Your task to perform on an android device: change your default location settings in chrome Image 0: 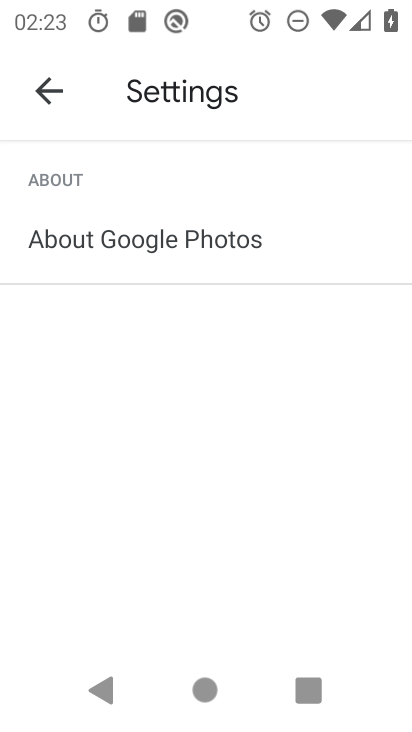
Step 0: press back button
Your task to perform on an android device: change your default location settings in chrome Image 1: 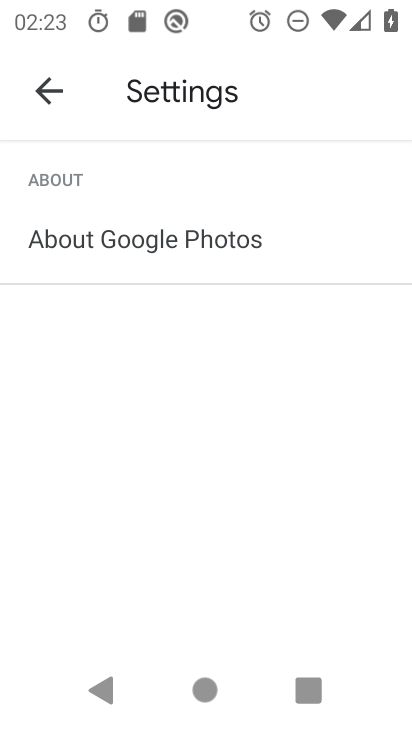
Step 1: press home button
Your task to perform on an android device: change your default location settings in chrome Image 2: 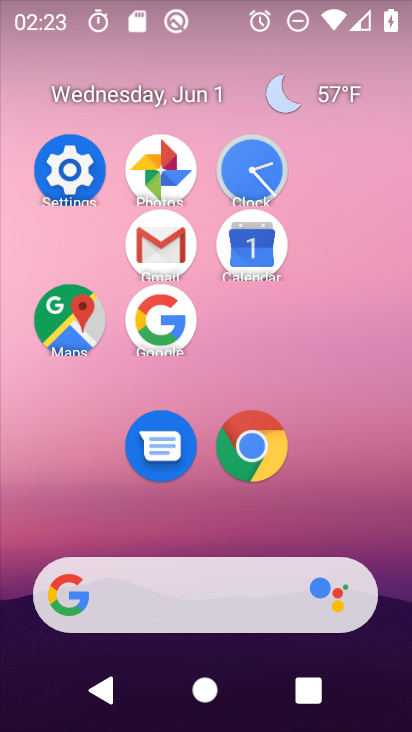
Step 2: click (262, 443)
Your task to perform on an android device: change your default location settings in chrome Image 3: 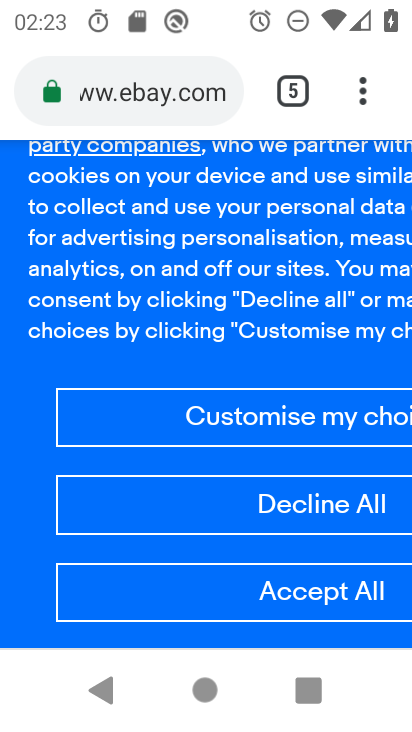
Step 3: click (379, 85)
Your task to perform on an android device: change your default location settings in chrome Image 4: 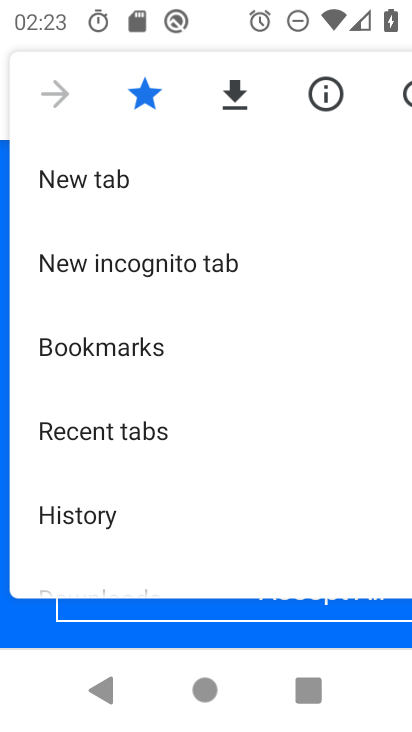
Step 4: drag from (300, 468) to (289, 151)
Your task to perform on an android device: change your default location settings in chrome Image 5: 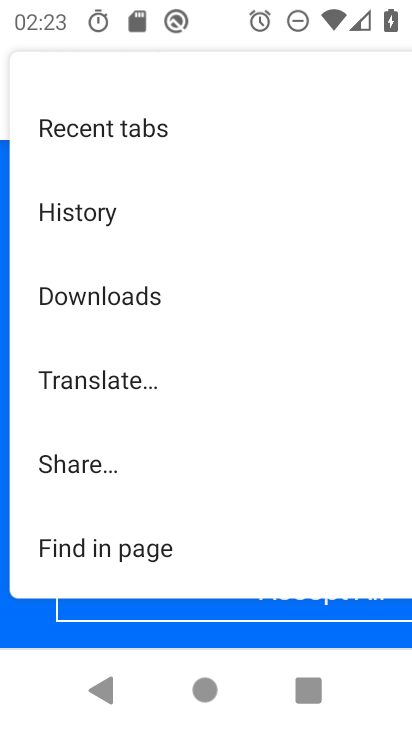
Step 5: drag from (241, 410) to (223, 79)
Your task to perform on an android device: change your default location settings in chrome Image 6: 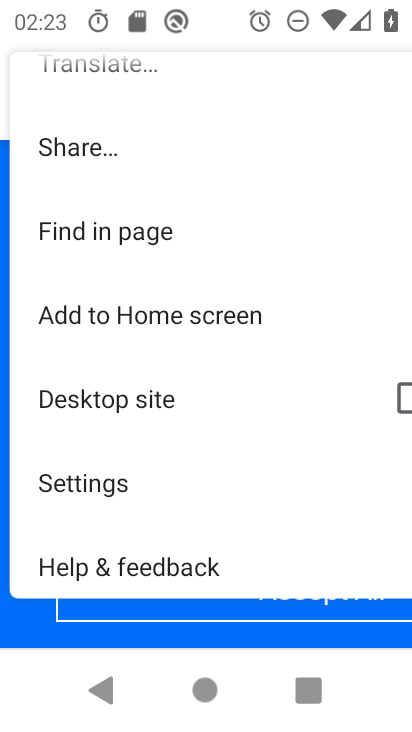
Step 6: click (156, 495)
Your task to perform on an android device: change your default location settings in chrome Image 7: 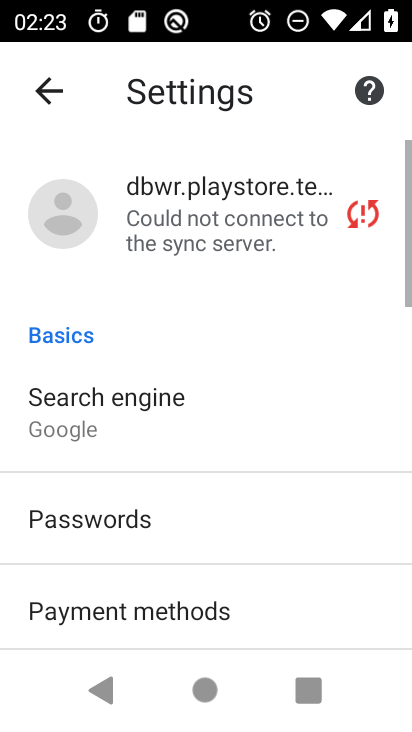
Step 7: drag from (229, 501) to (225, 166)
Your task to perform on an android device: change your default location settings in chrome Image 8: 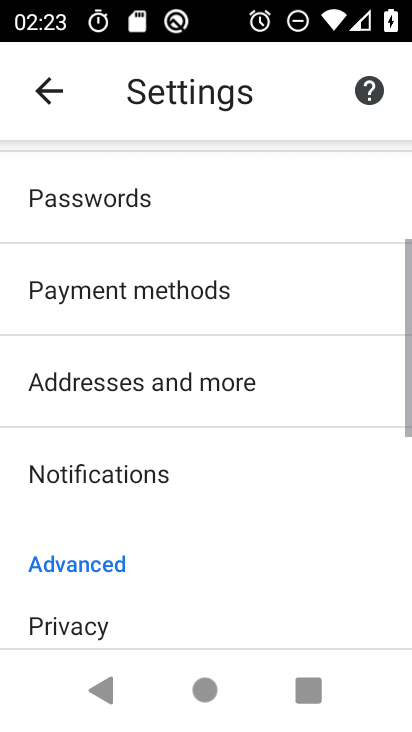
Step 8: drag from (247, 549) to (178, 133)
Your task to perform on an android device: change your default location settings in chrome Image 9: 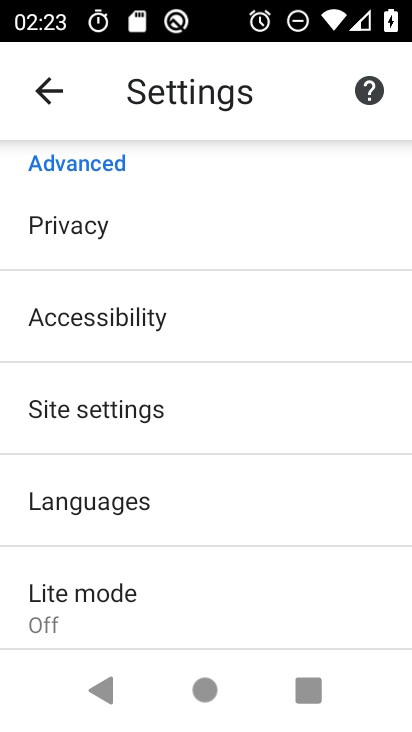
Step 9: drag from (200, 519) to (153, 111)
Your task to perform on an android device: change your default location settings in chrome Image 10: 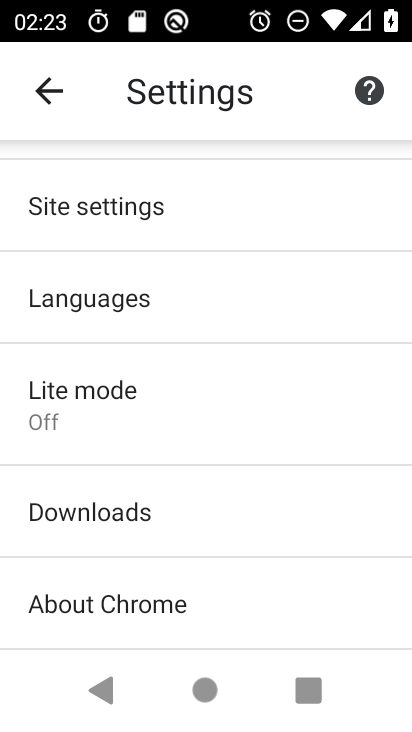
Step 10: drag from (144, 549) to (149, 175)
Your task to perform on an android device: change your default location settings in chrome Image 11: 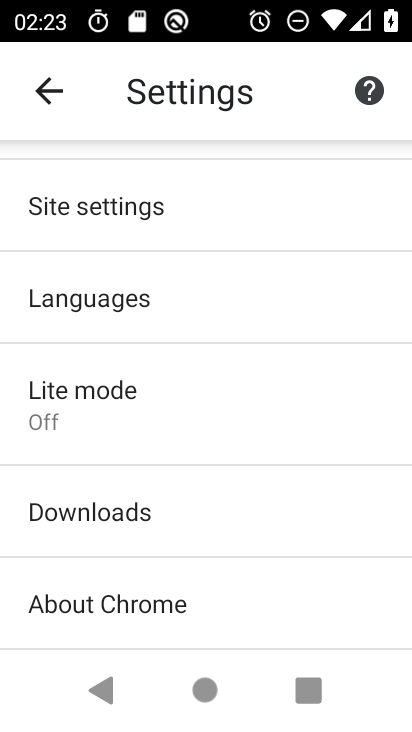
Step 11: drag from (203, 518) to (194, 192)
Your task to perform on an android device: change your default location settings in chrome Image 12: 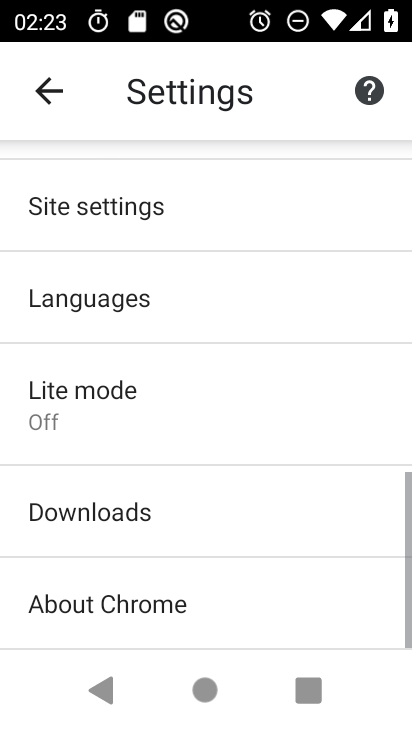
Step 12: drag from (233, 626) to (300, 219)
Your task to perform on an android device: change your default location settings in chrome Image 13: 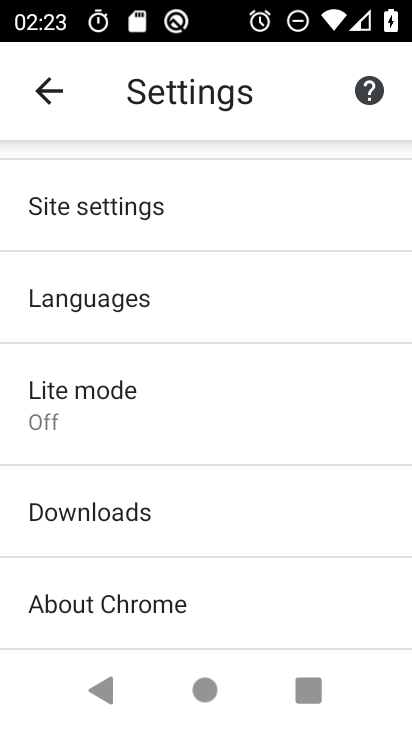
Step 13: drag from (299, 272) to (259, 723)
Your task to perform on an android device: change your default location settings in chrome Image 14: 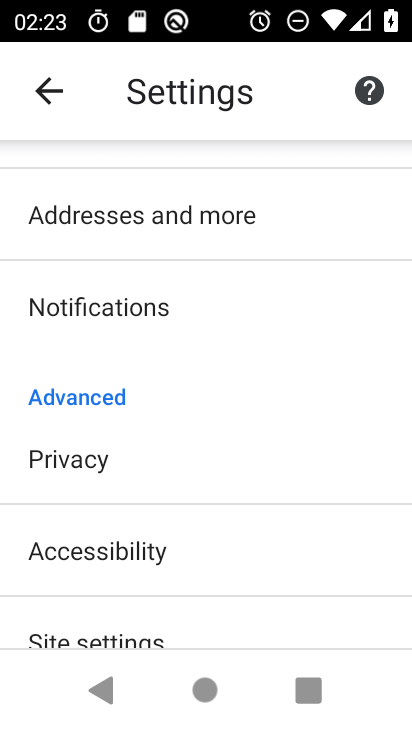
Step 14: drag from (197, 564) to (204, 262)
Your task to perform on an android device: change your default location settings in chrome Image 15: 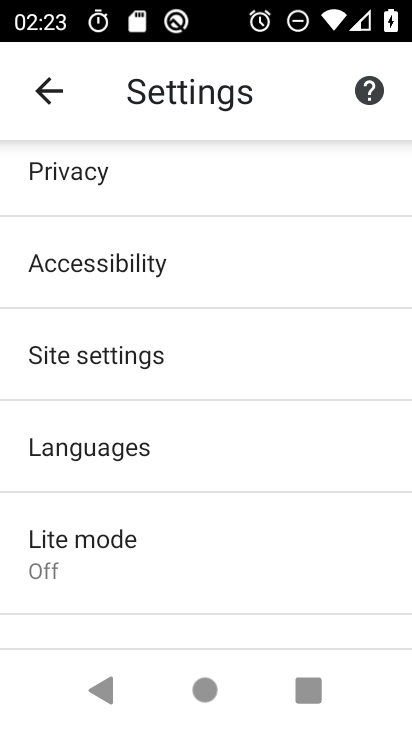
Step 15: click (221, 373)
Your task to perform on an android device: change your default location settings in chrome Image 16: 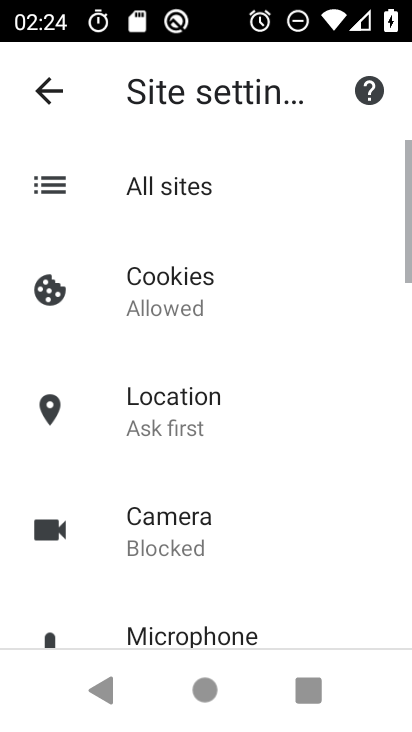
Step 16: click (226, 399)
Your task to perform on an android device: change your default location settings in chrome Image 17: 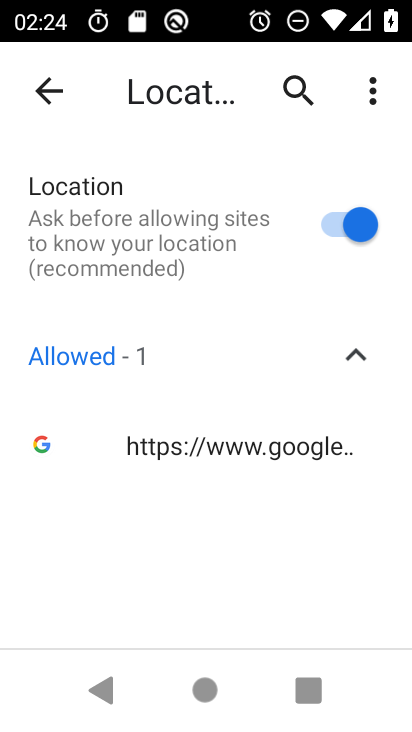
Step 17: click (348, 200)
Your task to perform on an android device: change your default location settings in chrome Image 18: 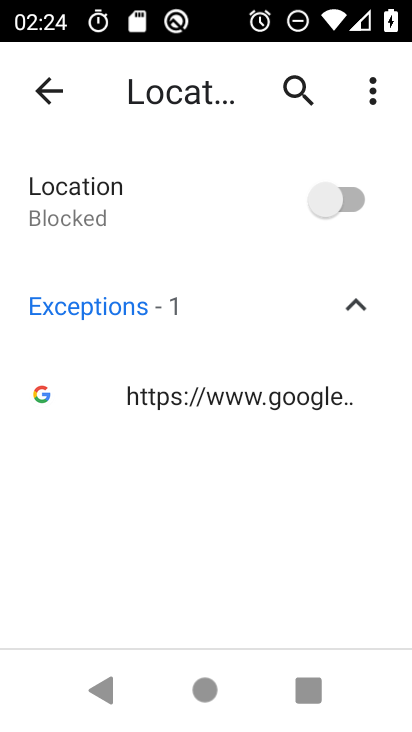
Step 18: task complete